Your task to perform on an android device: turn on sleep mode Image 0: 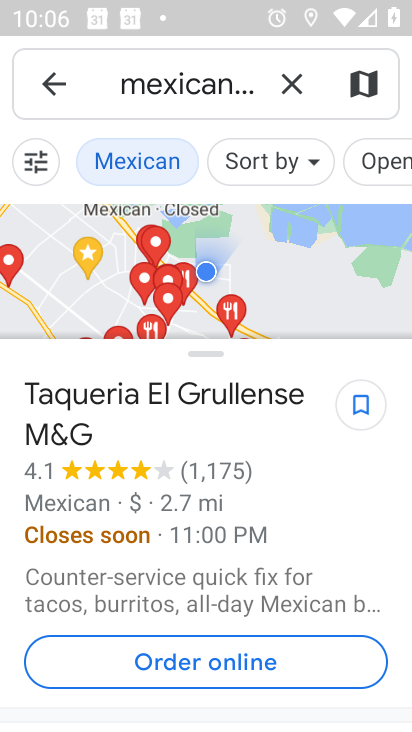
Step 0: press home button
Your task to perform on an android device: turn on sleep mode Image 1: 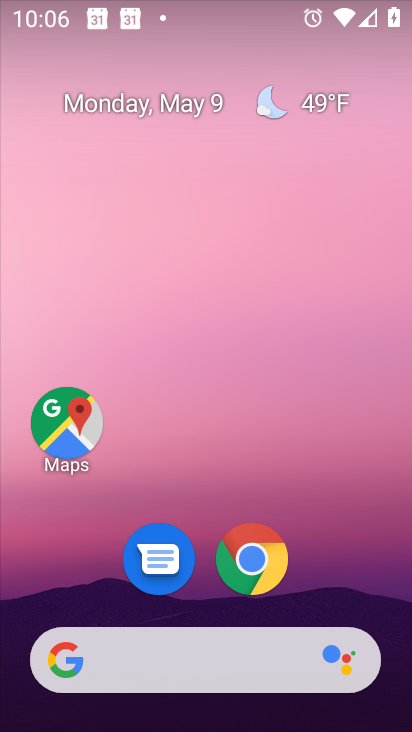
Step 1: drag from (196, 728) to (202, 197)
Your task to perform on an android device: turn on sleep mode Image 2: 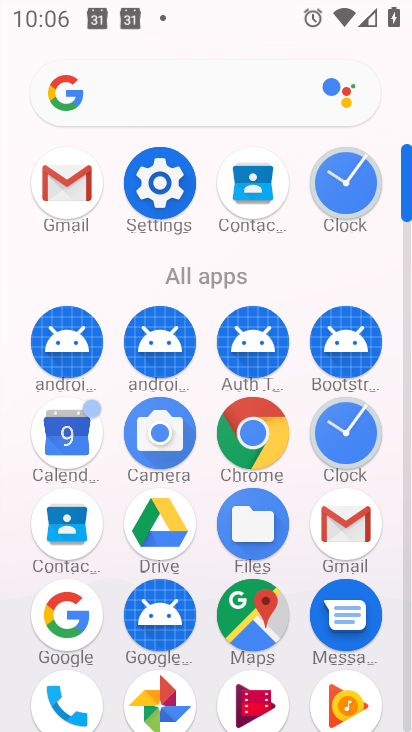
Step 2: click (158, 175)
Your task to perform on an android device: turn on sleep mode Image 3: 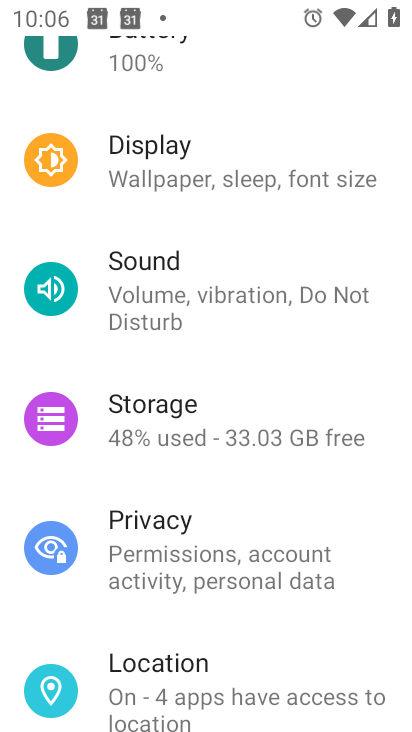
Step 3: drag from (353, 133) to (333, 546)
Your task to perform on an android device: turn on sleep mode Image 4: 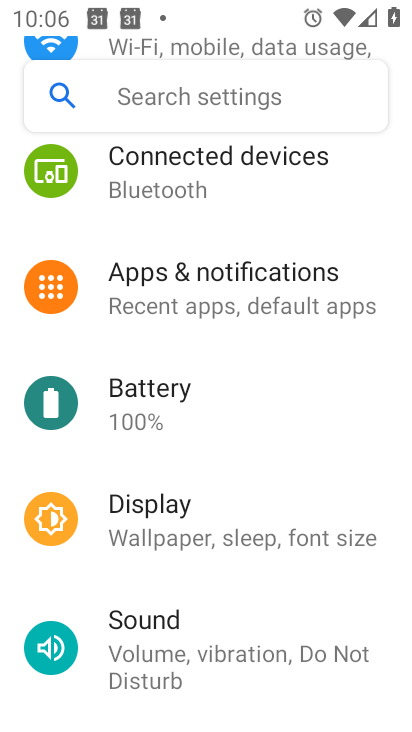
Step 4: drag from (333, 196) to (342, 608)
Your task to perform on an android device: turn on sleep mode Image 5: 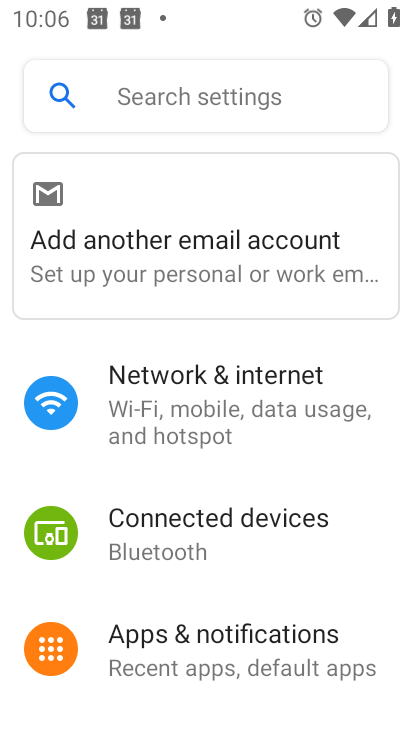
Step 5: drag from (249, 629) to (239, 231)
Your task to perform on an android device: turn on sleep mode Image 6: 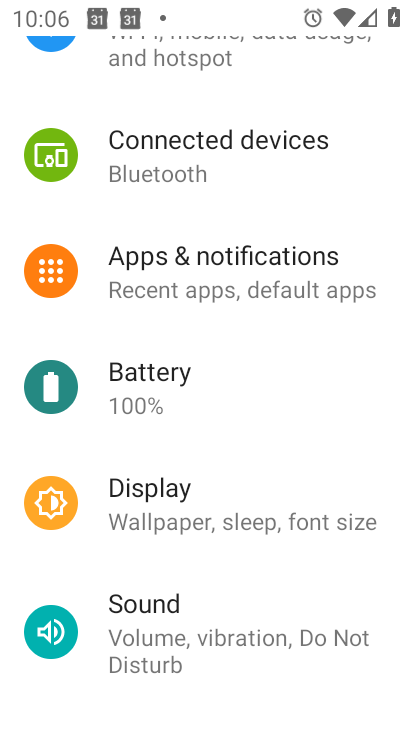
Step 6: click (243, 520)
Your task to perform on an android device: turn on sleep mode Image 7: 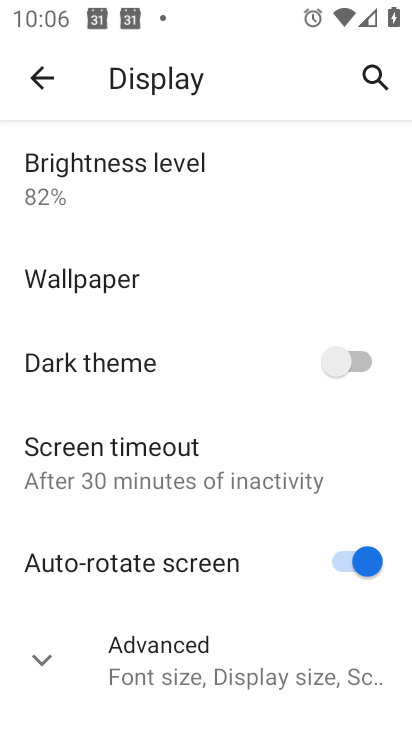
Step 7: click (37, 79)
Your task to perform on an android device: turn on sleep mode Image 8: 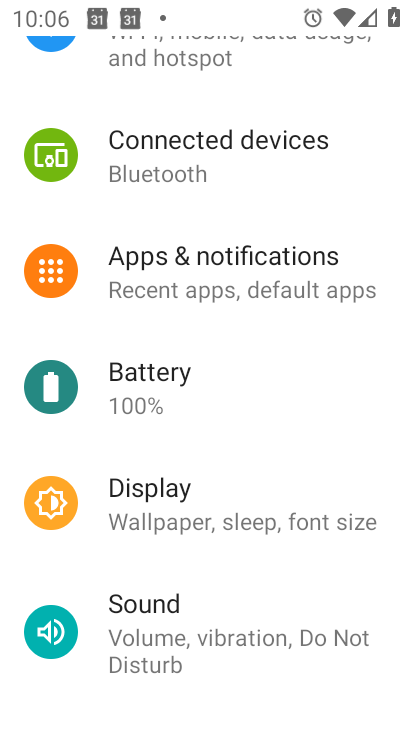
Step 8: task complete